Your task to perform on an android device: all mails in gmail Image 0: 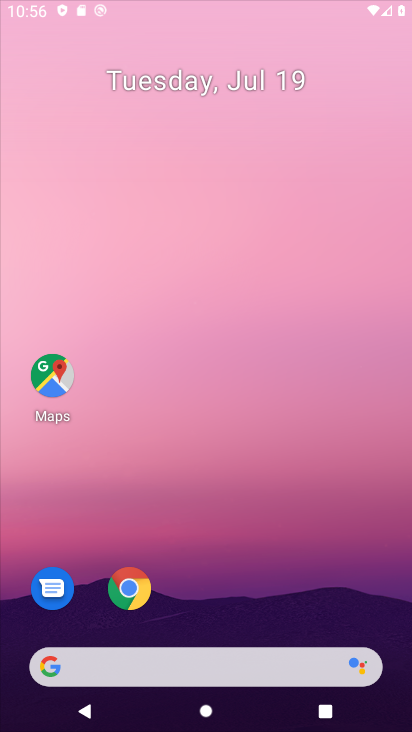
Step 0: click (187, 85)
Your task to perform on an android device: all mails in gmail Image 1: 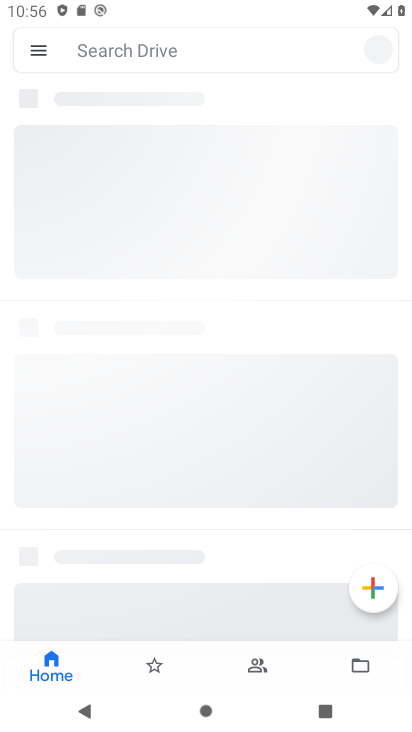
Step 1: drag from (341, 601) to (319, 252)
Your task to perform on an android device: all mails in gmail Image 2: 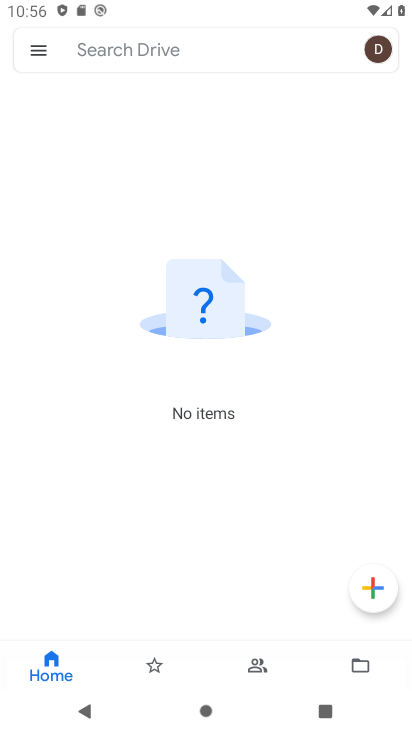
Step 2: press home button
Your task to perform on an android device: all mails in gmail Image 3: 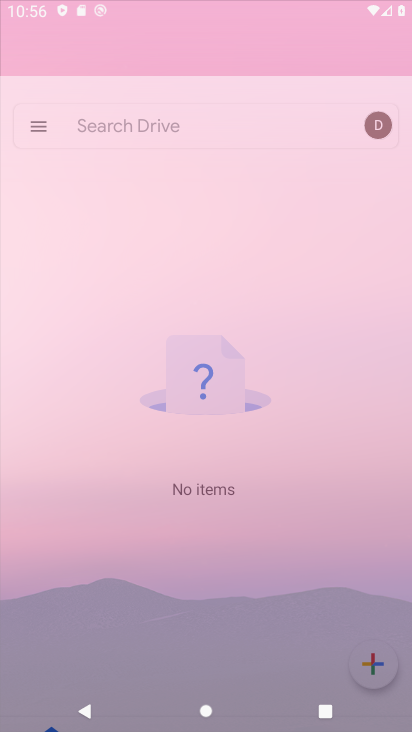
Step 3: drag from (316, 631) to (173, 24)
Your task to perform on an android device: all mails in gmail Image 4: 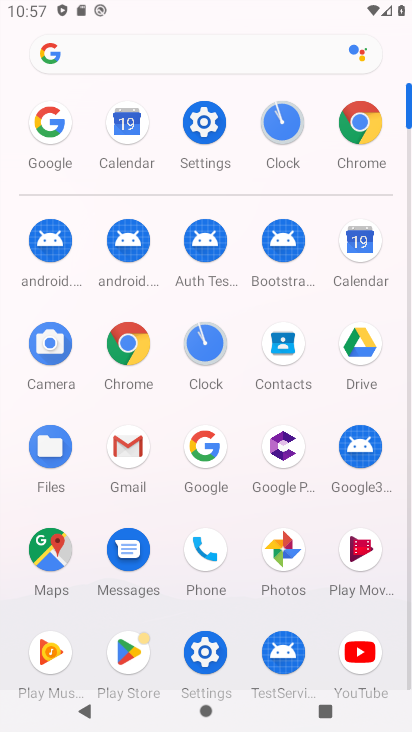
Step 4: click (130, 445)
Your task to perform on an android device: all mails in gmail Image 5: 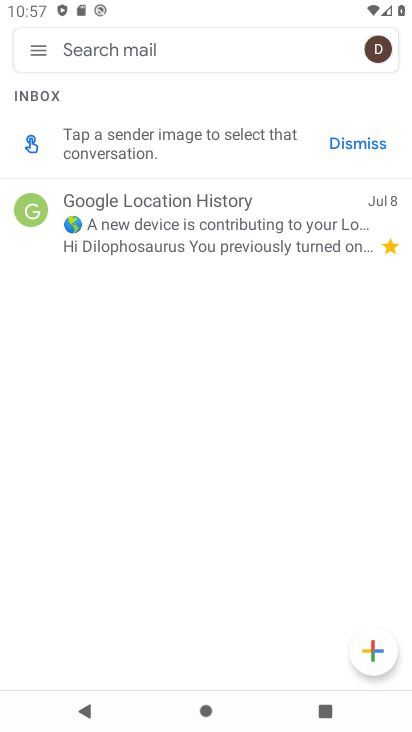
Step 5: click (31, 43)
Your task to perform on an android device: all mails in gmail Image 6: 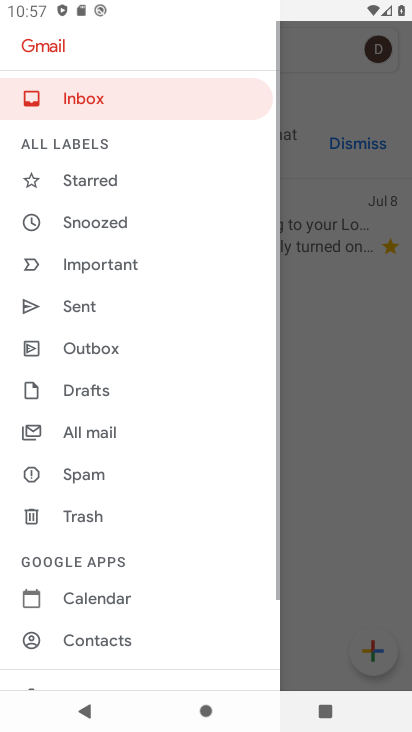
Step 6: click (50, 422)
Your task to perform on an android device: all mails in gmail Image 7: 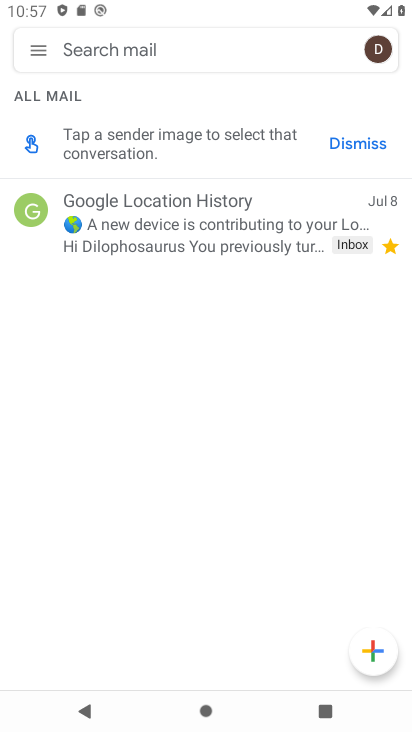
Step 7: task complete